Your task to perform on an android device: toggle notification dots Image 0: 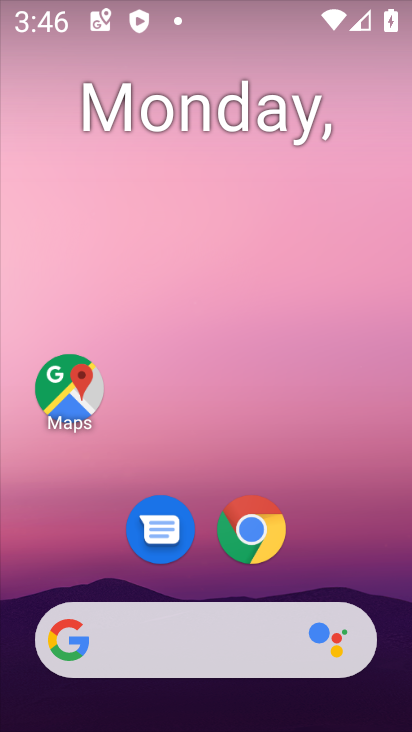
Step 0: drag from (217, 680) to (211, 169)
Your task to perform on an android device: toggle notification dots Image 1: 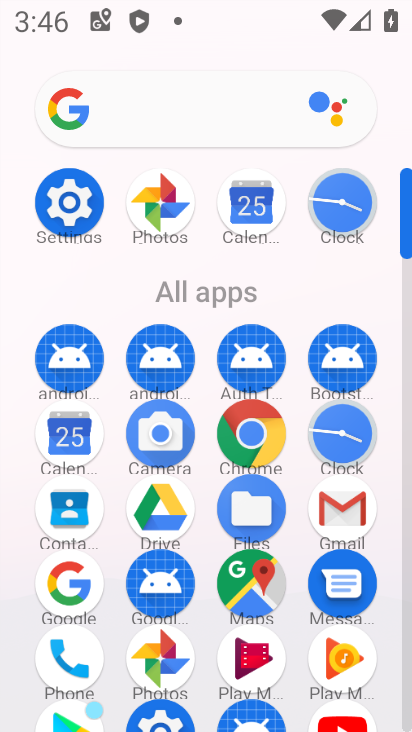
Step 1: click (64, 200)
Your task to perform on an android device: toggle notification dots Image 2: 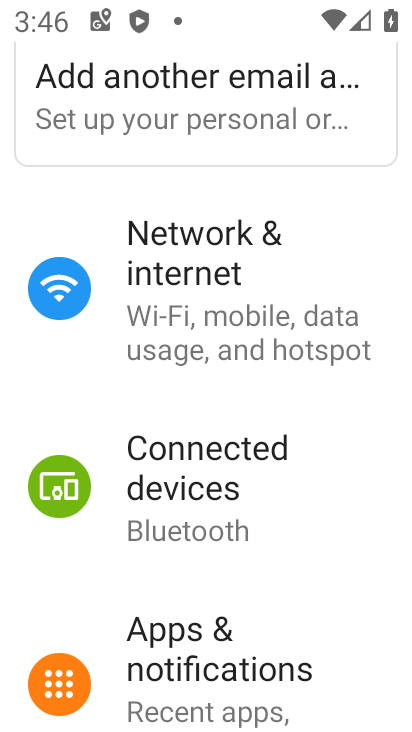
Step 2: drag from (213, 689) to (212, 508)
Your task to perform on an android device: toggle notification dots Image 3: 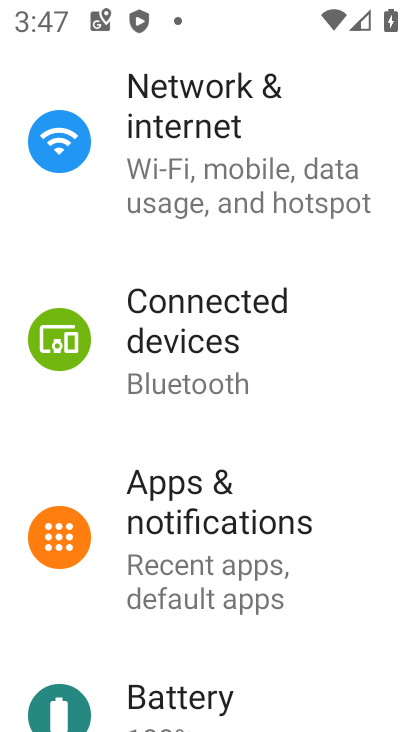
Step 3: click (209, 519)
Your task to perform on an android device: toggle notification dots Image 4: 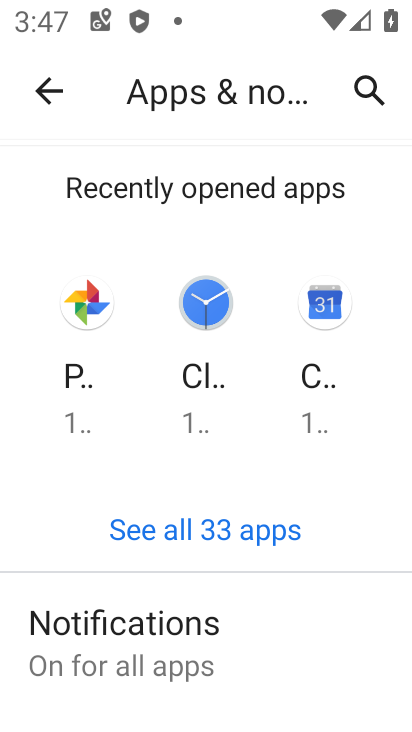
Step 4: click (177, 662)
Your task to perform on an android device: toggle notification dots Image 5: 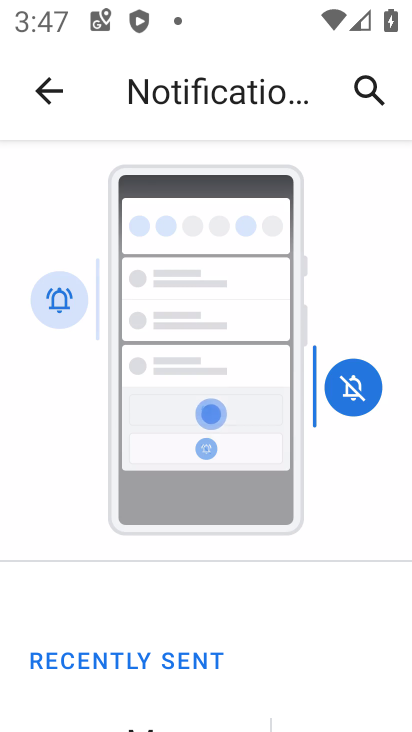
Step 5: drag from (182, 687) to (174, 358)
Your task to perform on an android device: toggle notification dots Image 6: 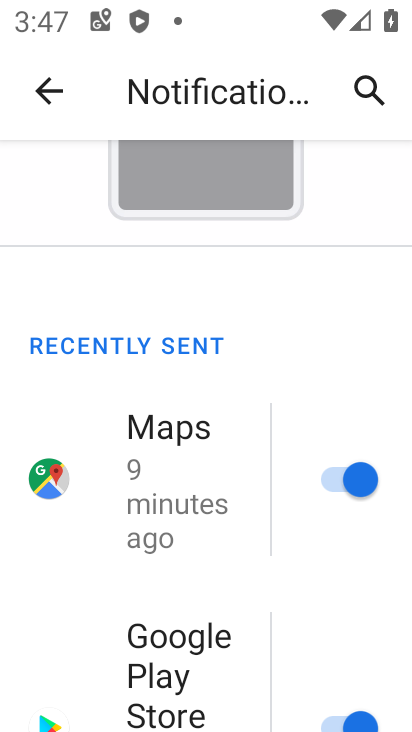
Step 6: drag from (206, 694) to (208, 305)
Your task to perform on an android device: toggle notification dots Image 7: 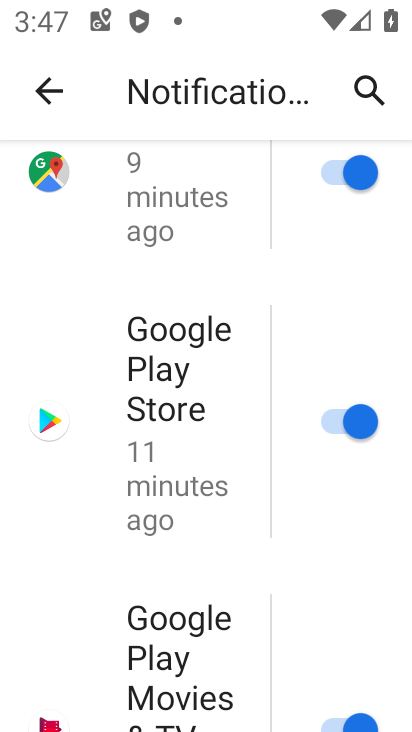
Step 7: drag from (235, 677) to (220, 247)
Your task to perform on an android device: toggle notification dots Image 8: 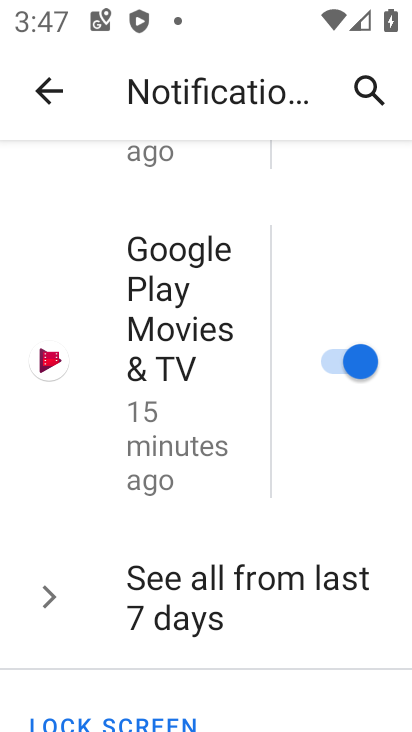
Step 8: drag from (226, 694) to (195, 301)
Your task to perform on an android device: toggle notification dots Image 9: 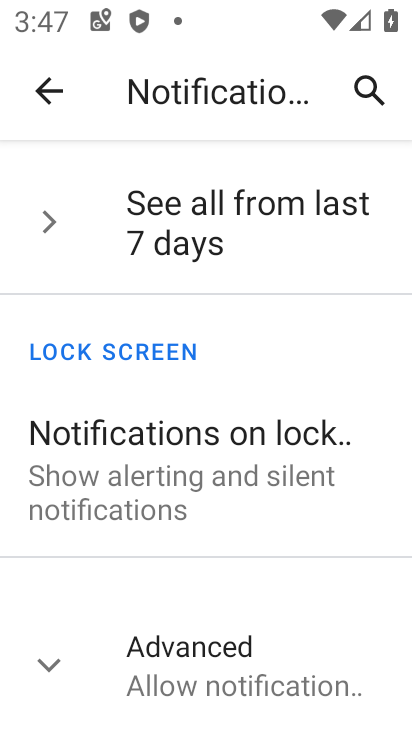
Step 9: click (231, 662)
Your task to perform on an android device: toggle notification dots Image 10: 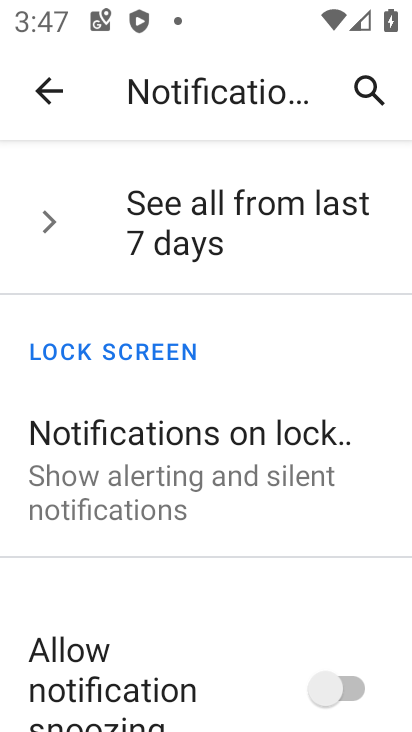
Step 10: drag from (227, 689) to (199, 310)
Your task to perform on an android device: toggle notification dots Image 11: 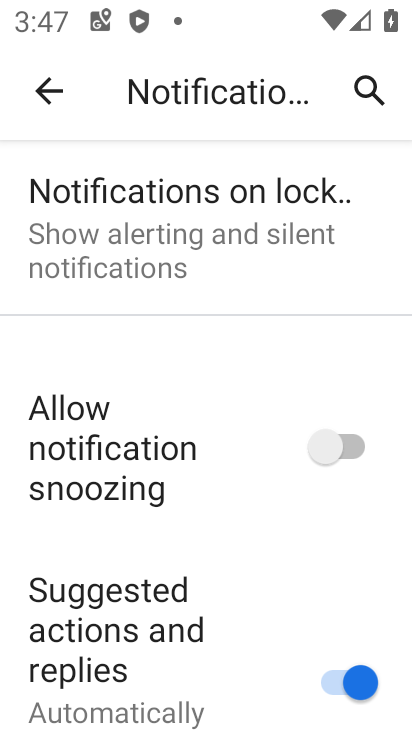
Step 11: drag from (256, 694) to (207, 270)
Your task to perform on an android device: toggle notification dots Image 12: 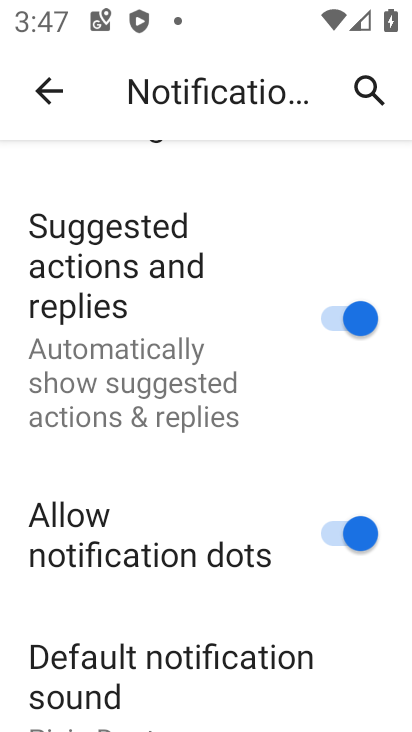
Step 12: click (330, 534)
Your task to perform on an android device: toggle notification dots Image 13: 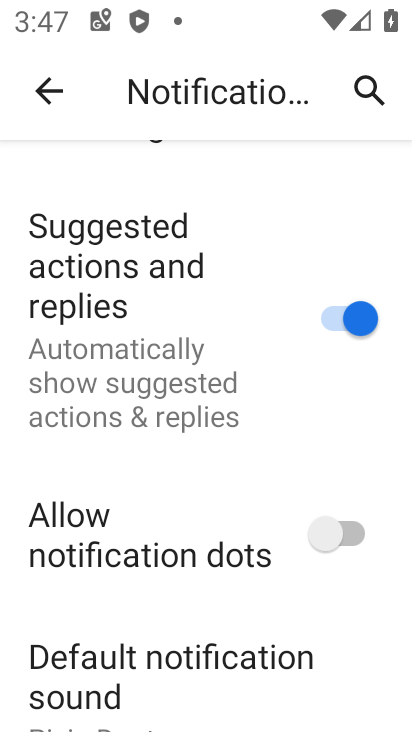
Step 13: task complete